Your task to perform on an android device: Go to Reddit.com Image 0: 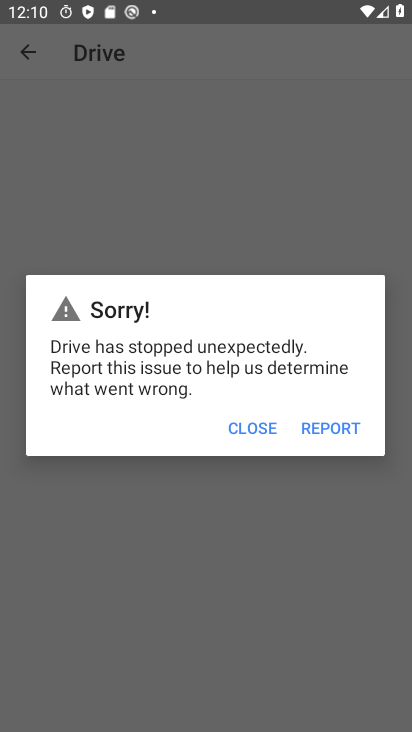
Step 0: press home button
Your task to perform on an android device: Go to Reddit.com Image 1: 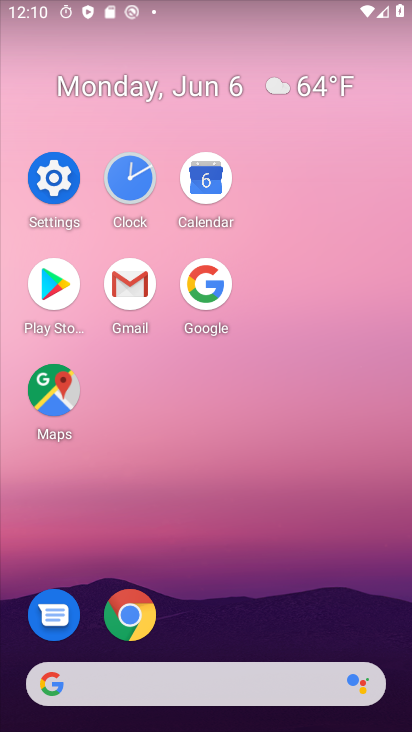
Step 1: click (216, 278)
Your task to perform on an android device: Go to Reddit.com Image 2: 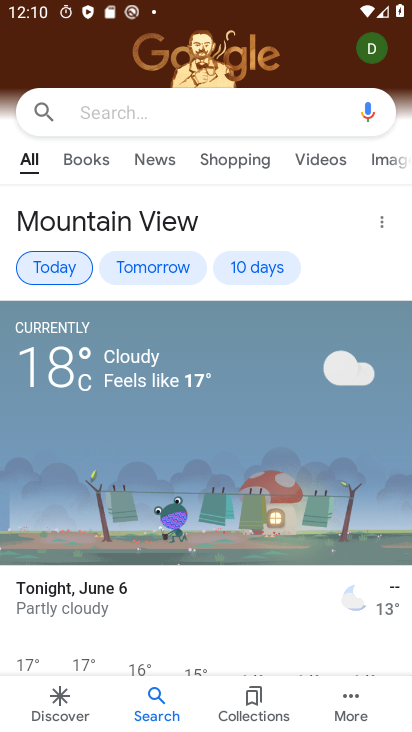
Step 2: click (158, 117)
Your task to perform on an android device: Go to Reddit.com Image 3: 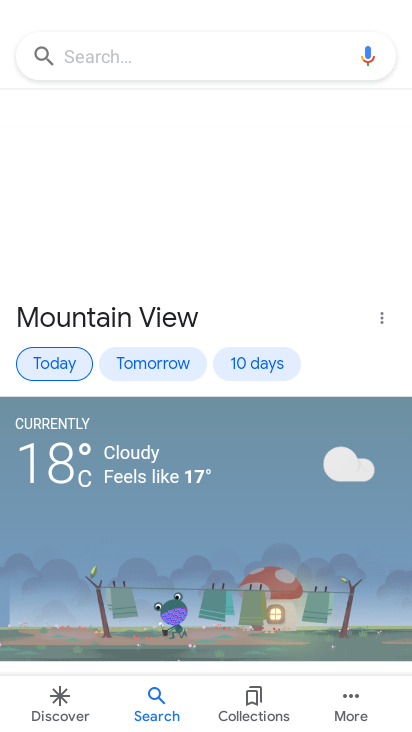
Step 3: click (101, 53)
Your task to perform on an android device: Go to Reddit.com Image 4: 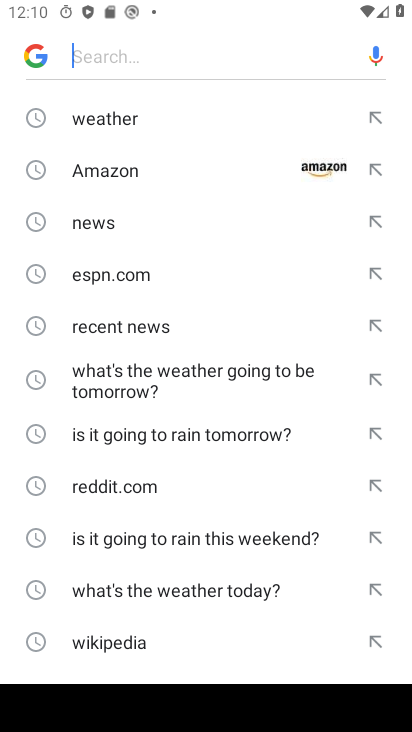
Step 4: click (149, 485)
Your task to perform on an android device: Go to Reddit.com Image 5: 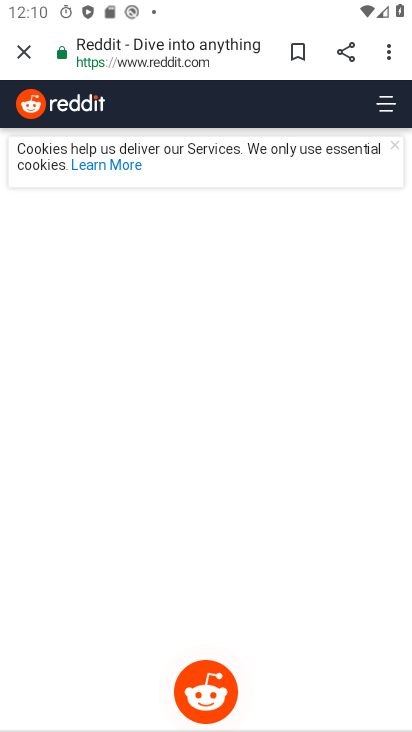
Step 5: task complete